Your task to perform on an android device: Search for the best rated mattress topper on Target. Image 0: 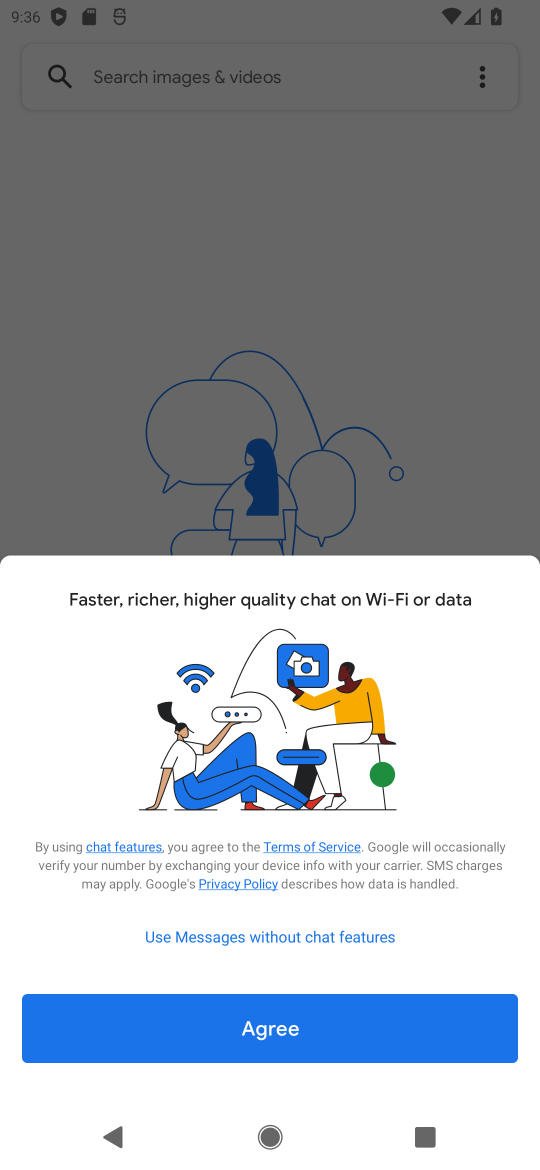
Step 0: task complete